Your task to perform on an android device: Show me popular videos on Youtube Image 0: 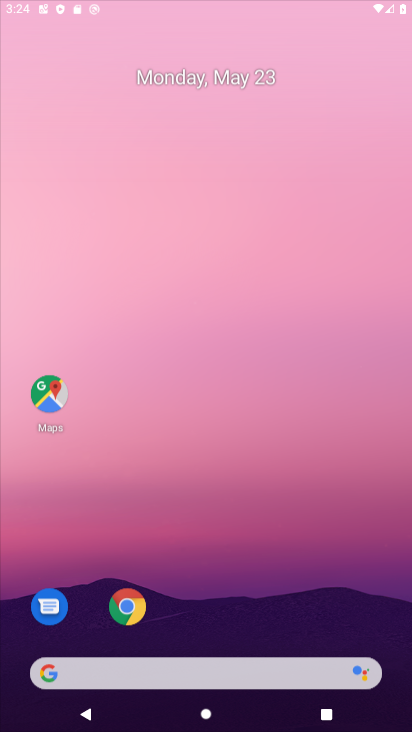
Step 0: press home button
Your task to perform on an android device: Show me popular videos on Youtube Image 1: 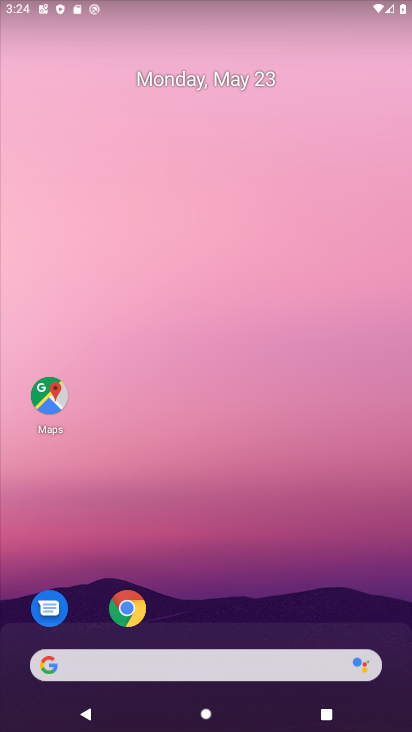
Step 1: drag from (260, 476) to (144, 5)
Your task to perform on an android device: Show me popular videos on Youtube Image 2: 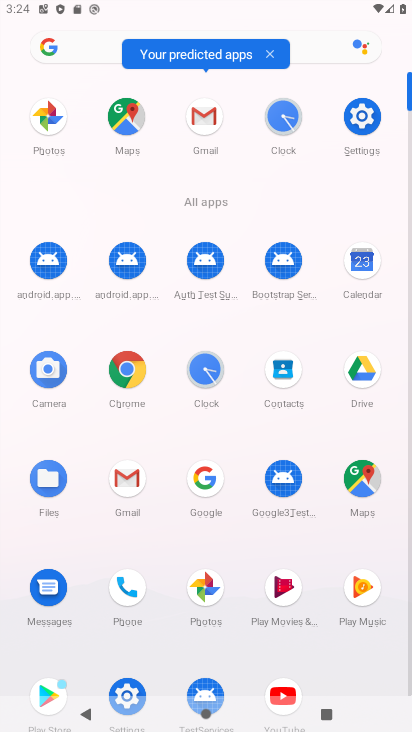
Step 2: click (295, 682)
Your task to perform on an android device: Show me popular videos on Youtube Image 3: 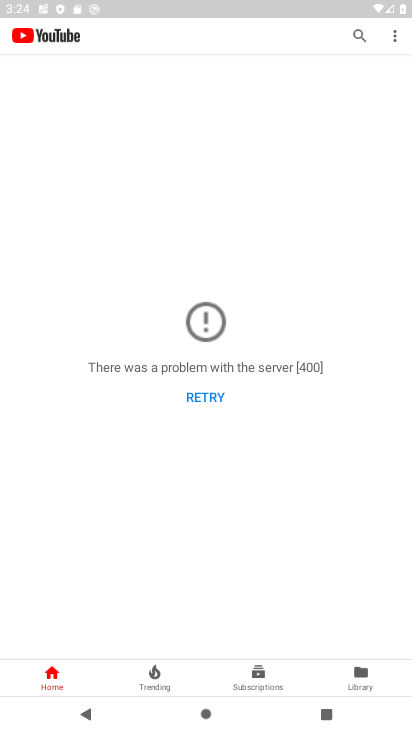
Step 3: click (358, 669)
Your task to perform on an android device: Show me popular videos on Youtube Image 4: 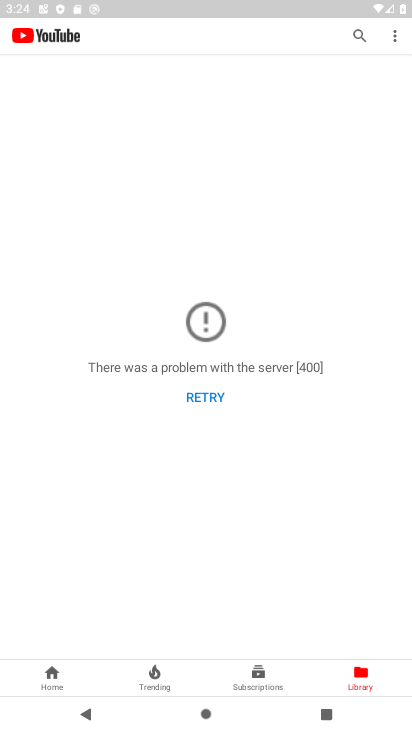
Step 4: task complete